Your task to perform on an android device: install app "Spotify: Music and Podcasts" Image 0: 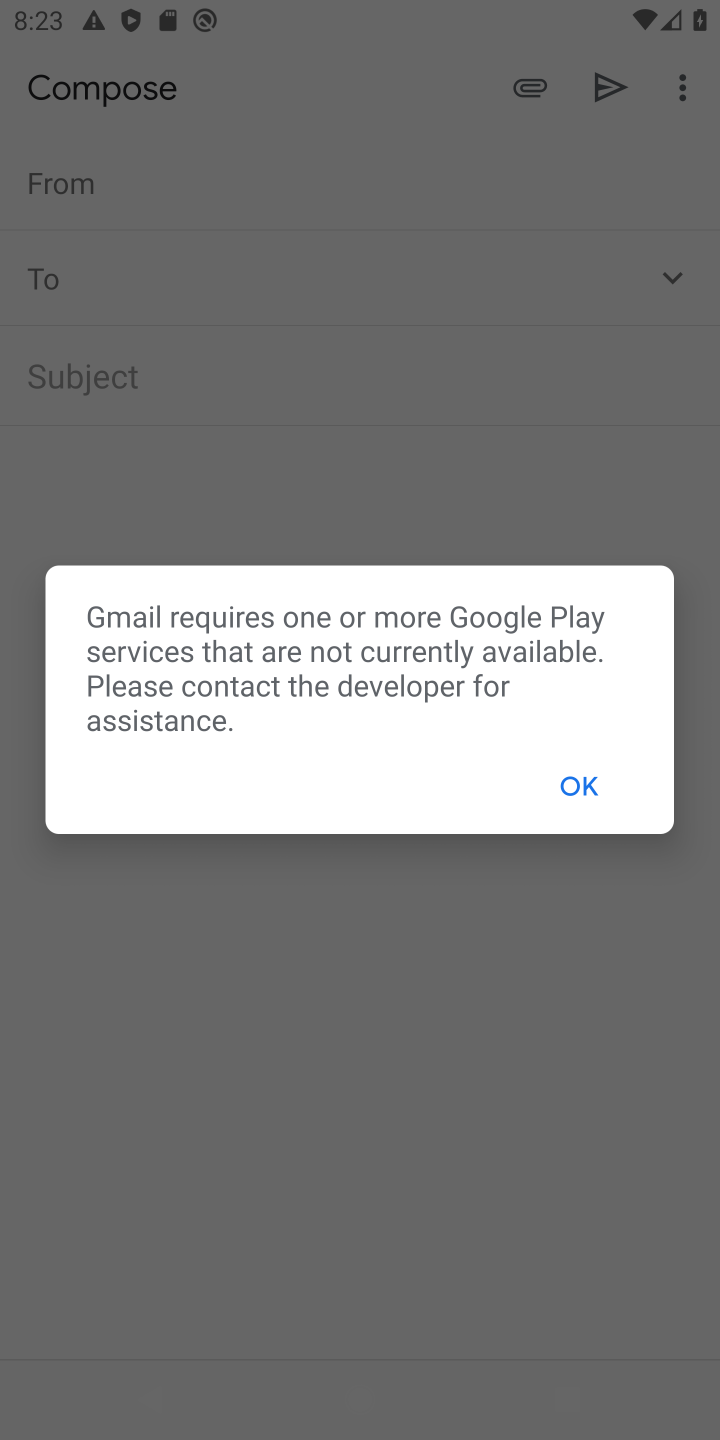
Step 0: press home button
Your task to perform on an android device: install app "Spotify: Music and Podcasts" Image 1: 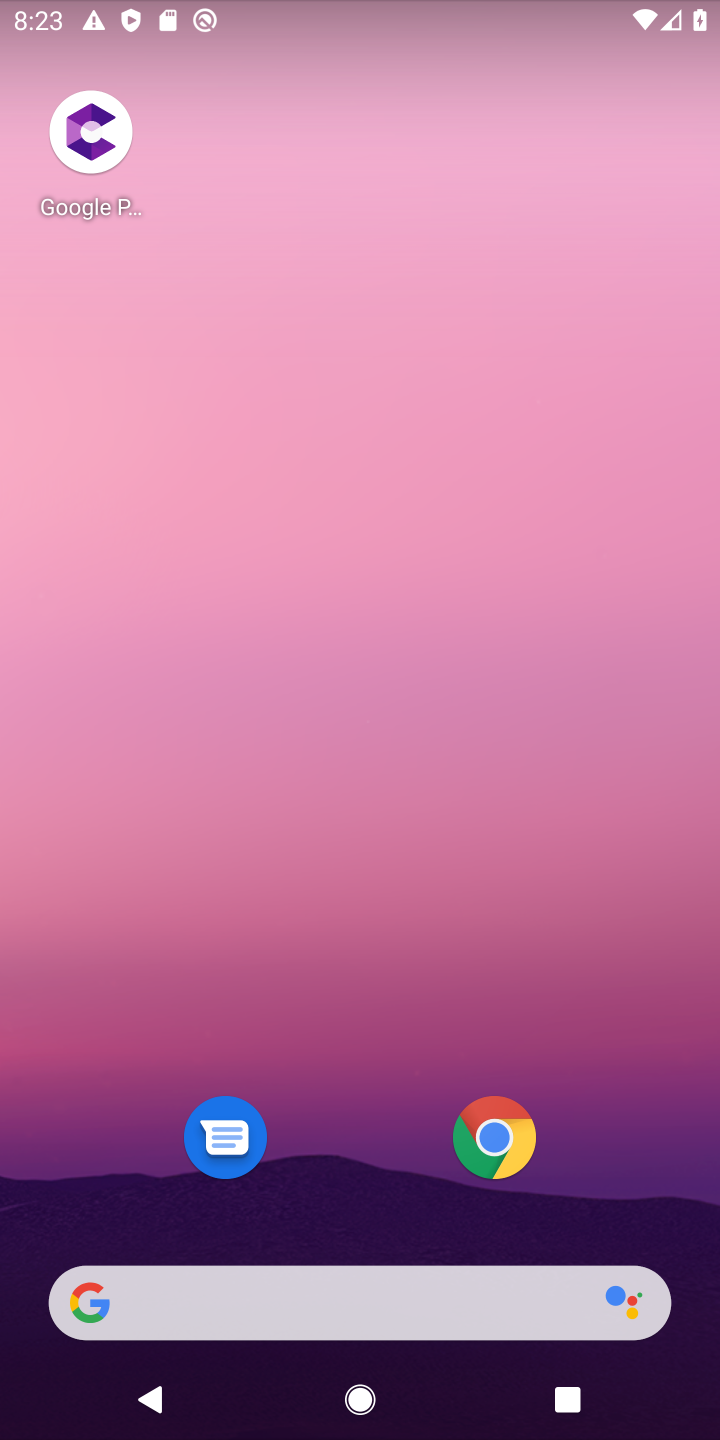
Step 1: drag from (637, 1171) to (697, 113)
Your task to perform on an android device: install app "Spotify: Music and Podcasts" Image 2: 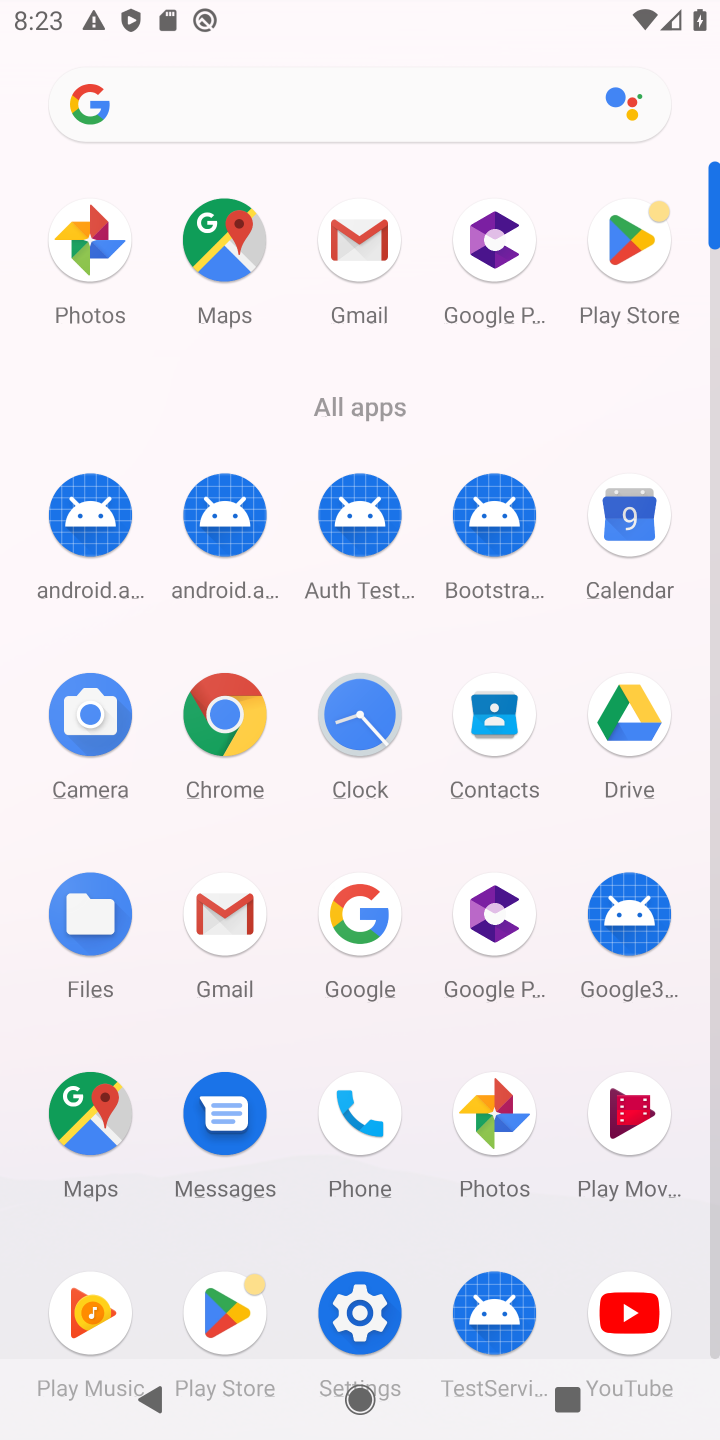
Step 2: click (619, 248)
Your task to perform on an android device: install app "Spotify: Music and Podcasts" Image 3: 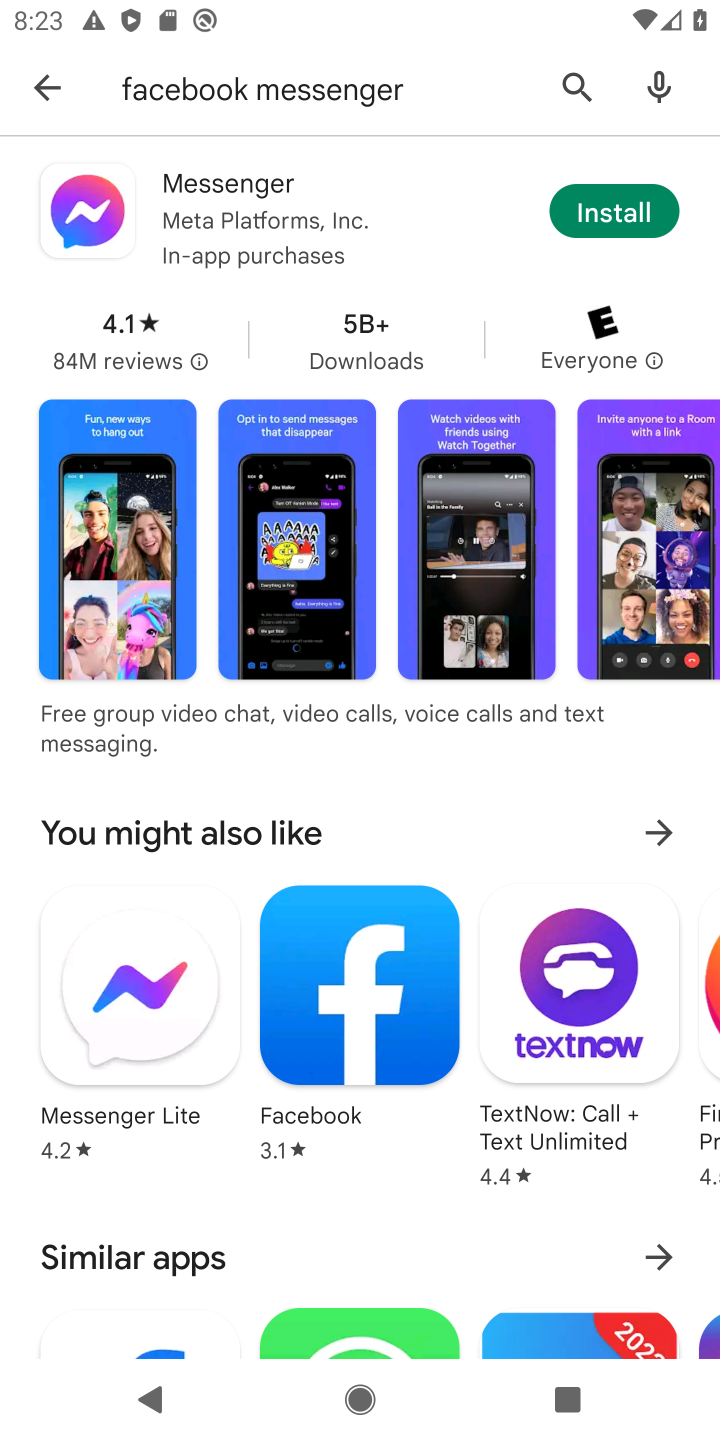
Step 3: click (568, 84)
Your task to perform on an android device: install app "Spotify: Music and Podcasts" Image 4: 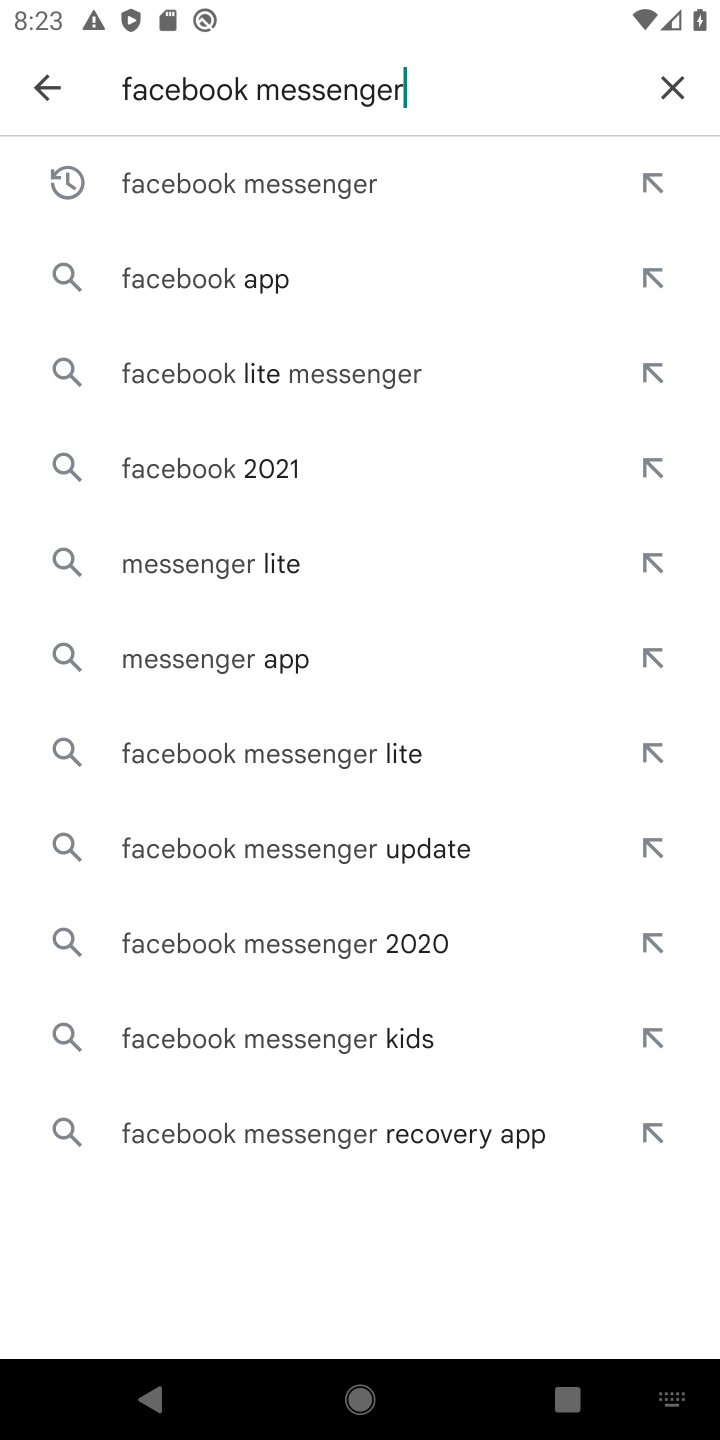
Step 4: press back button
Your task to perform on an android device: install app "Spotify: Music and Podcasts" Image 5: 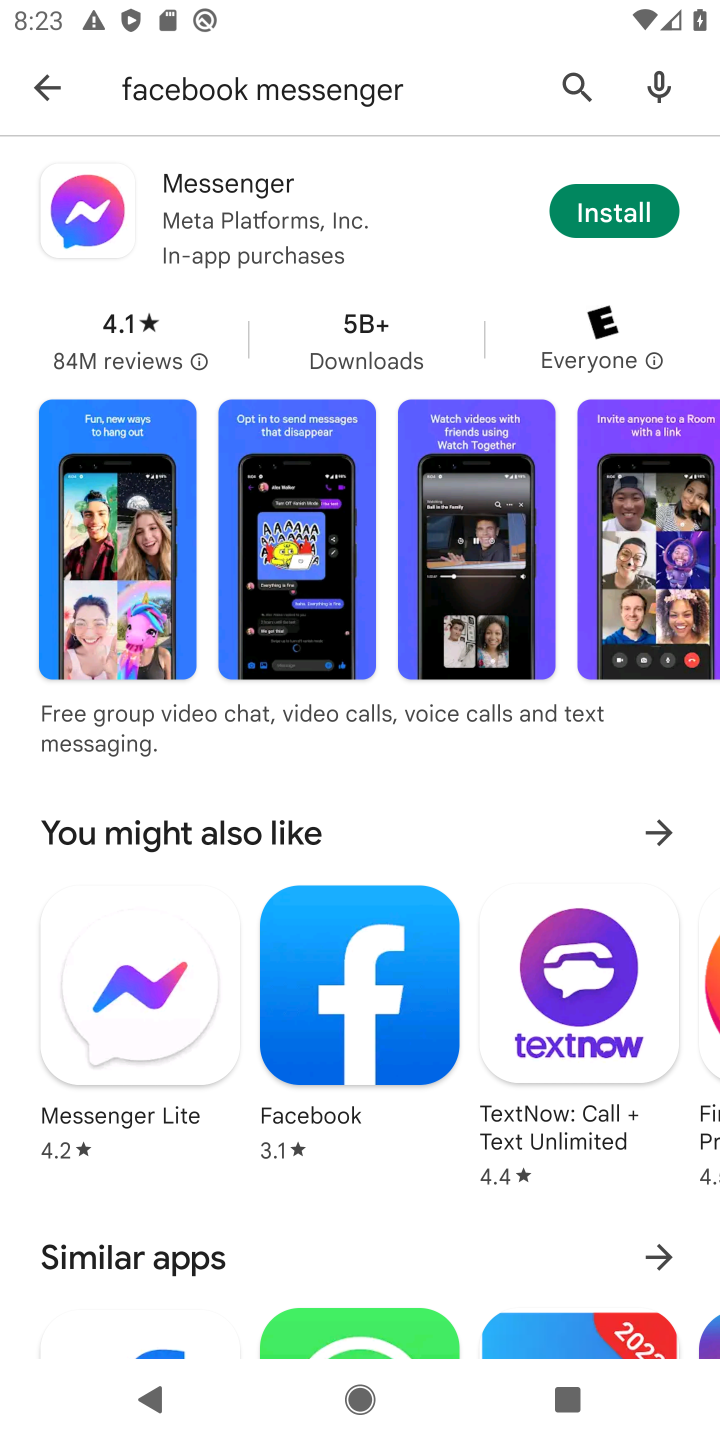
Step 5: click (575, 92)
Your task to perform on an android device: install app "Spotify: Music and Podcasts" Image 6: 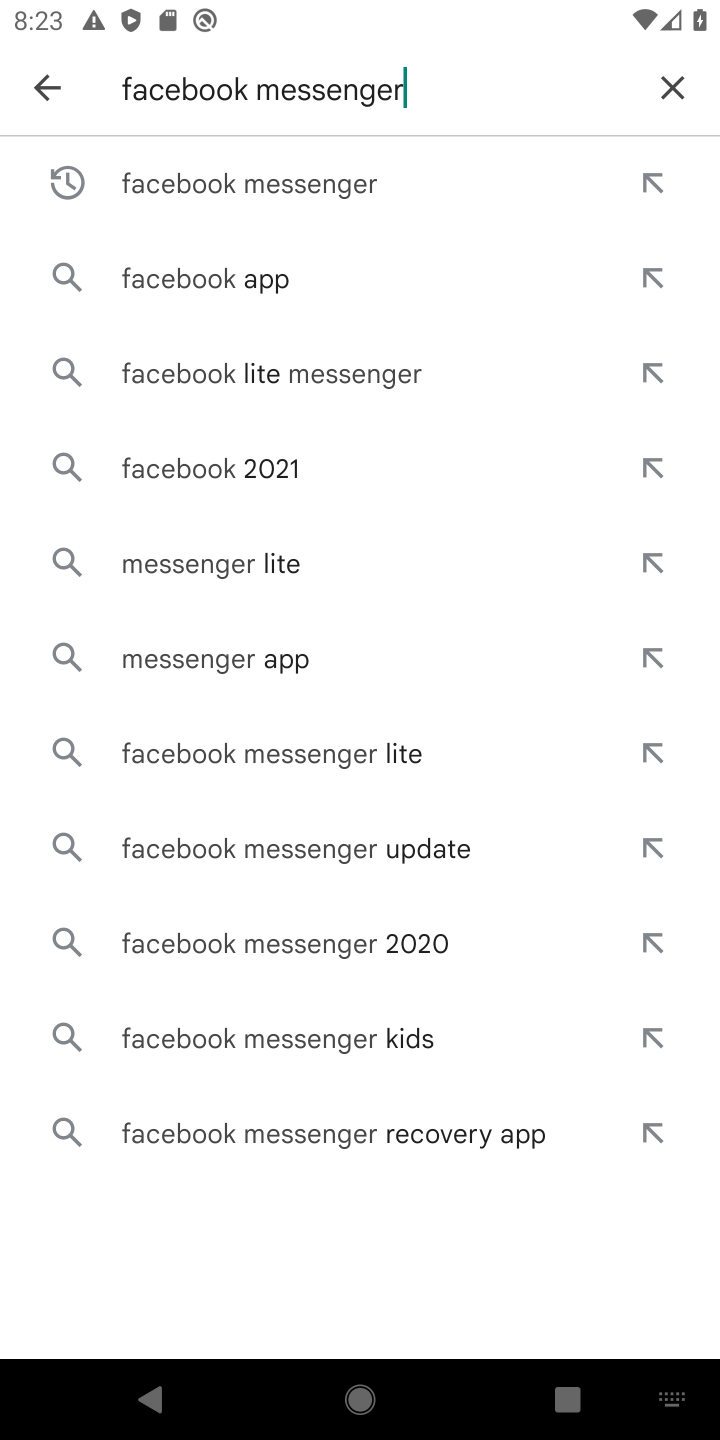
Step 6: click (672, 81)
Your task to perform on an android device: install app "Spotify: Music and Podcasts" Image 7: 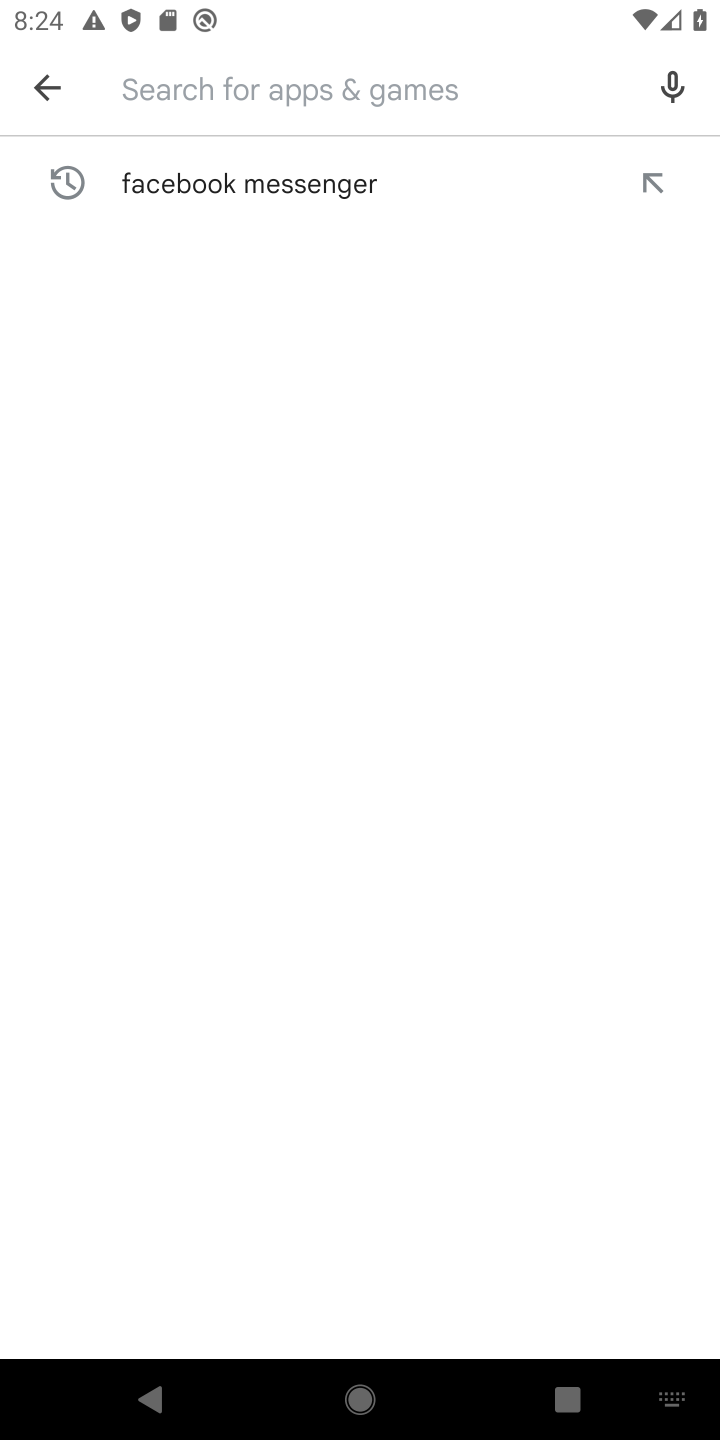
Step 7: type "Spotify: Music and Podcasts"
Your task to perform on an android device: install app "Spotify: Music and Podcasts" Image 8: 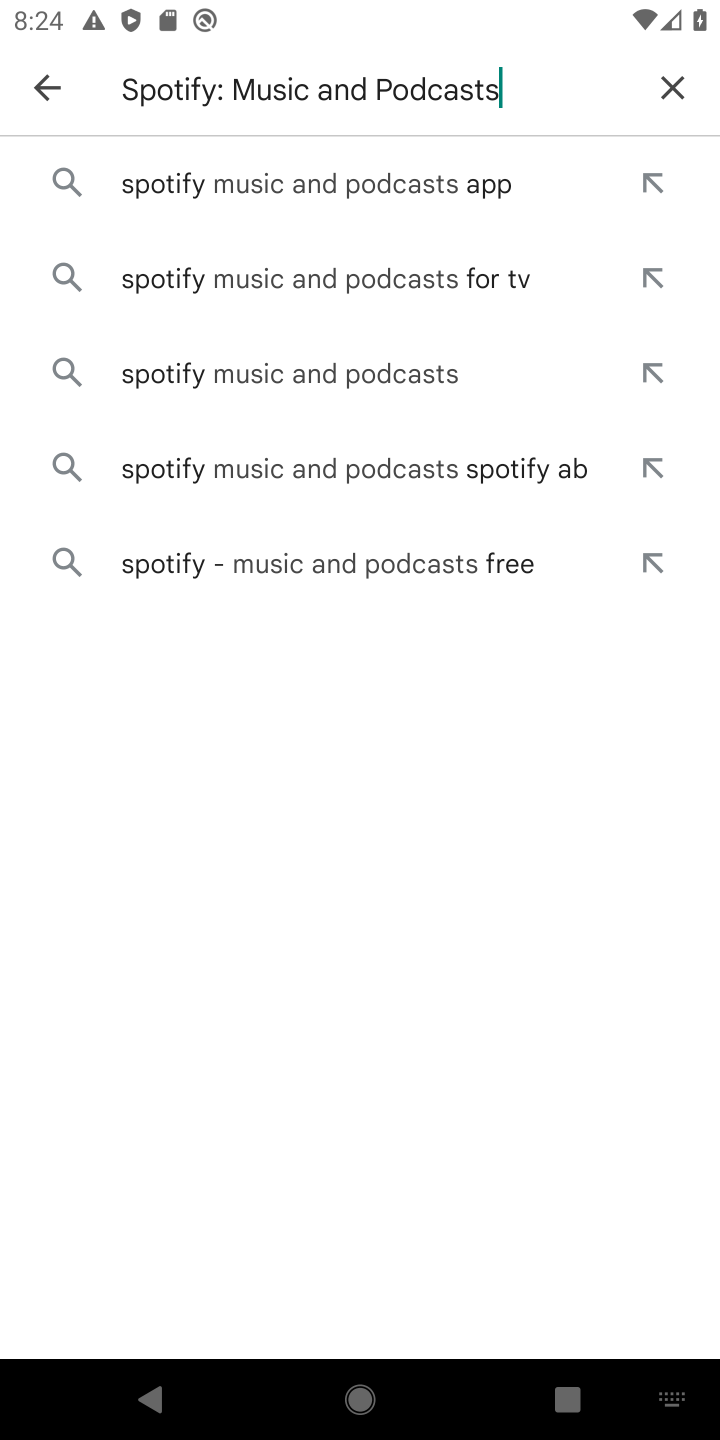
Step 8: click (381, 181)
Your task to perform on an android device: install app "Spotify: Music and Podcasts" Image 9: 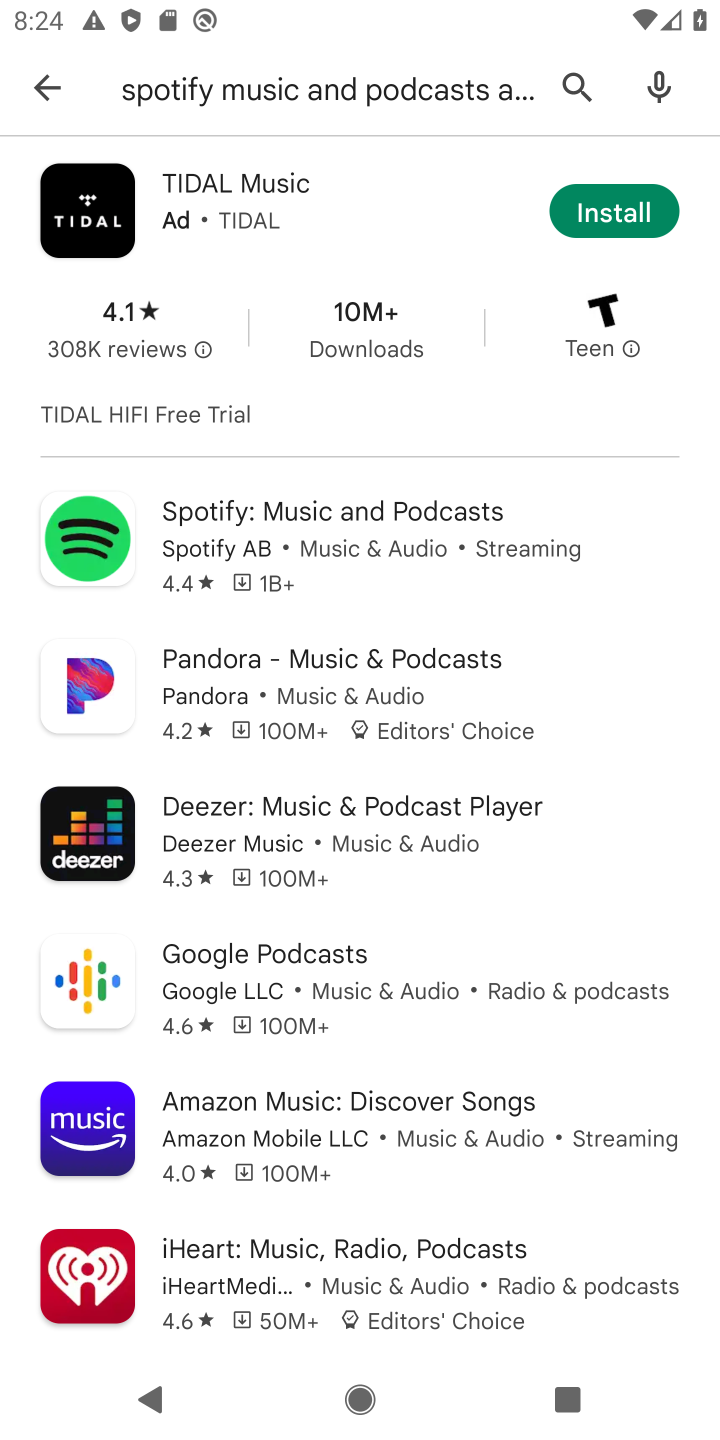
Step 9: click (431, 546)
Your task to perform on an android device: install app "Spotify: Music and Podcasts" Image 10: 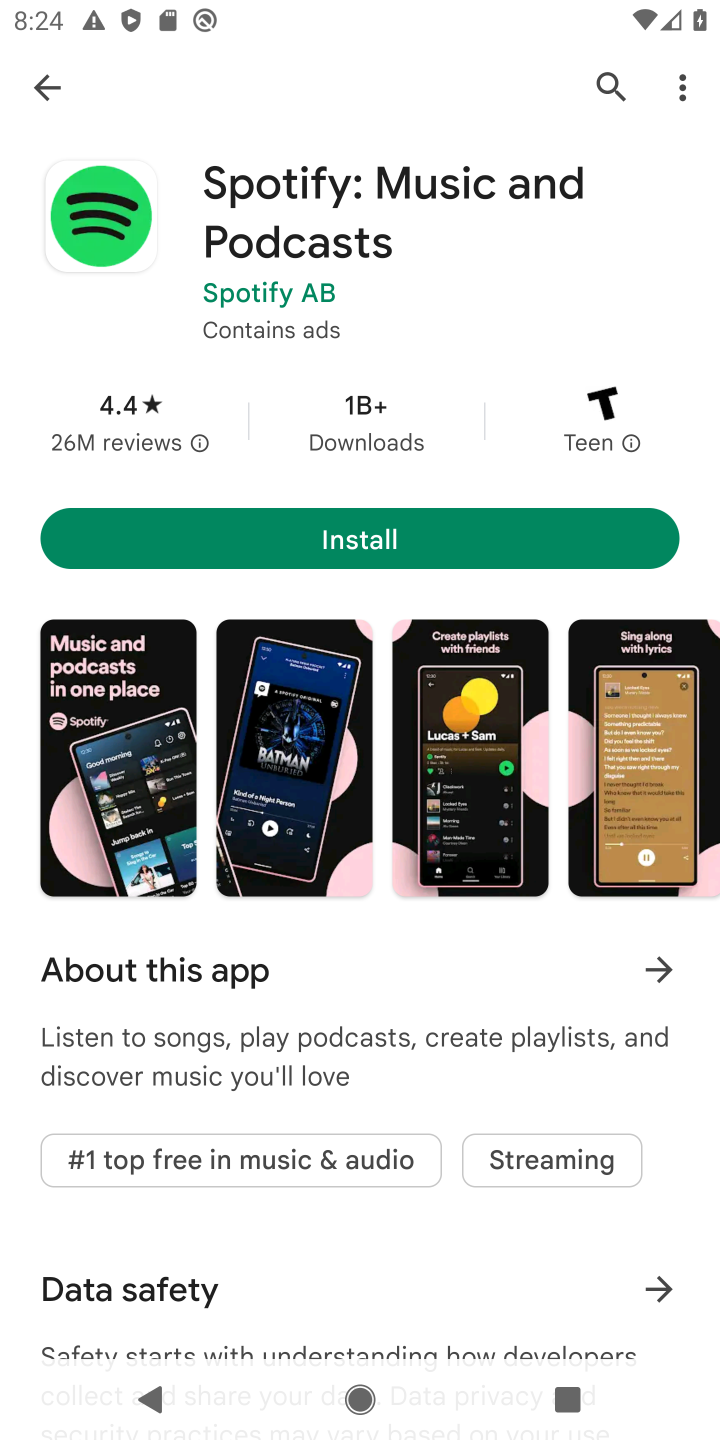
Step 10: click (523, 542)
Your task to perform on an android device: install app "Spotify: Music and Podcasts" Image 11: 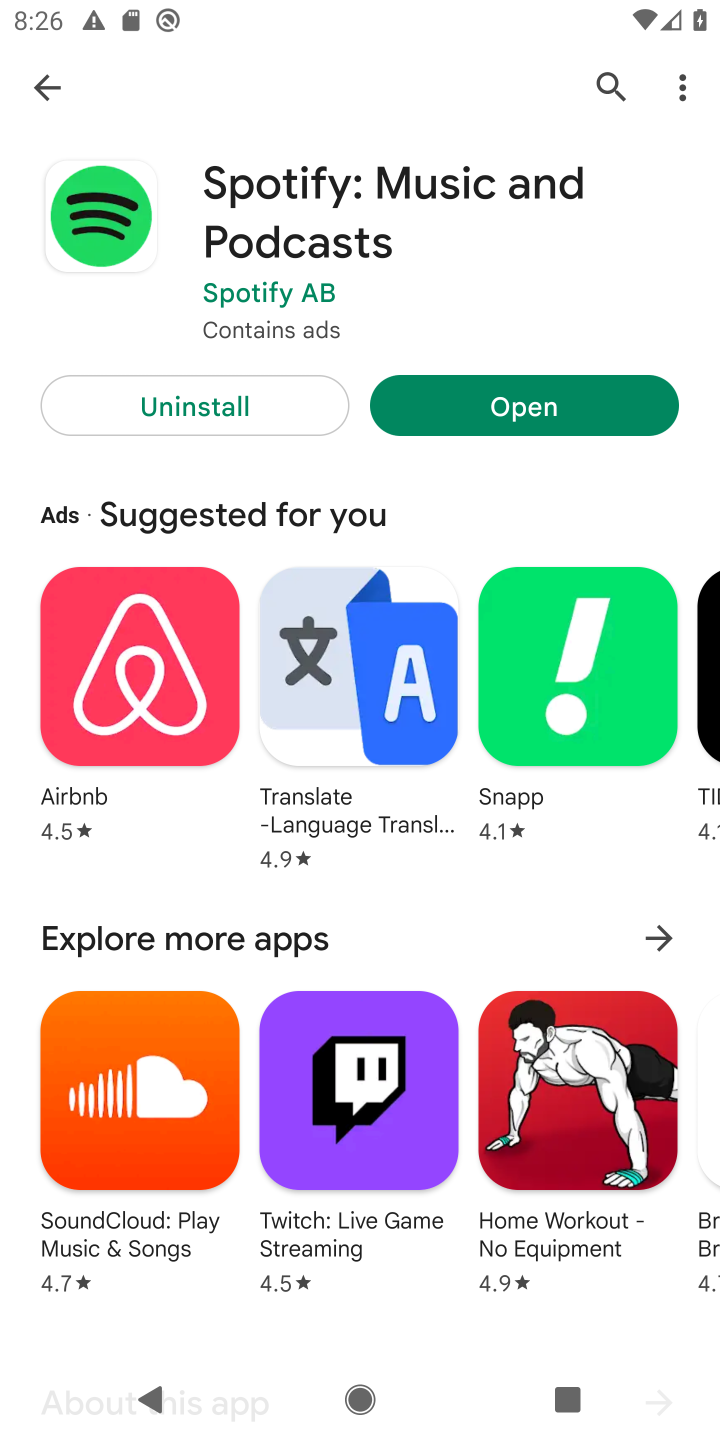
Step 11: task complete